Your task to perform on an android device: snooze an email in the gmail app Image 0: 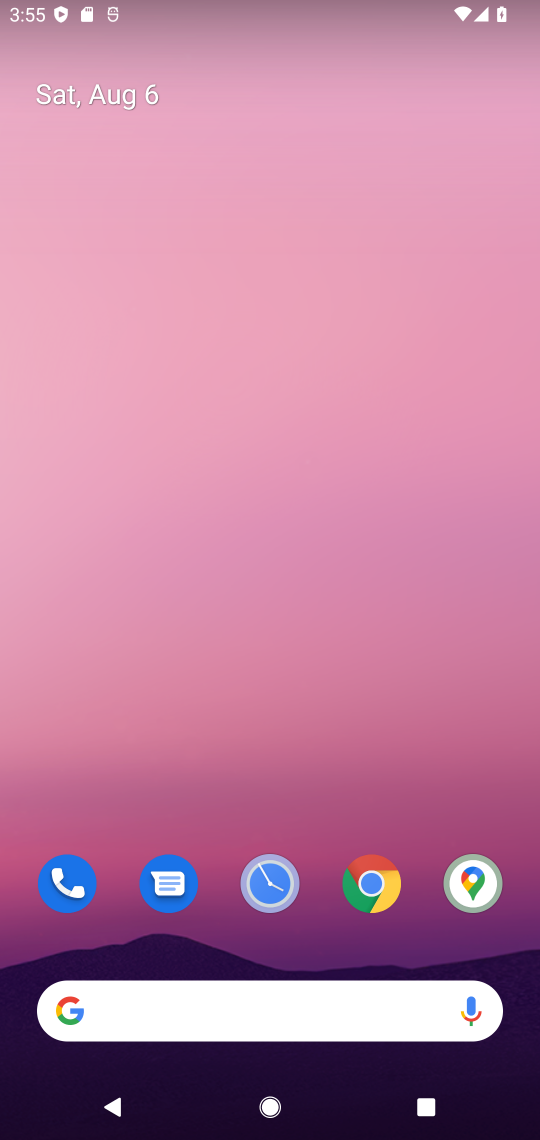
Step 0: drag from (353, 1011) to (442, 167)
Your task to perform on an android device: snooze an email in the gmail app Image 1: 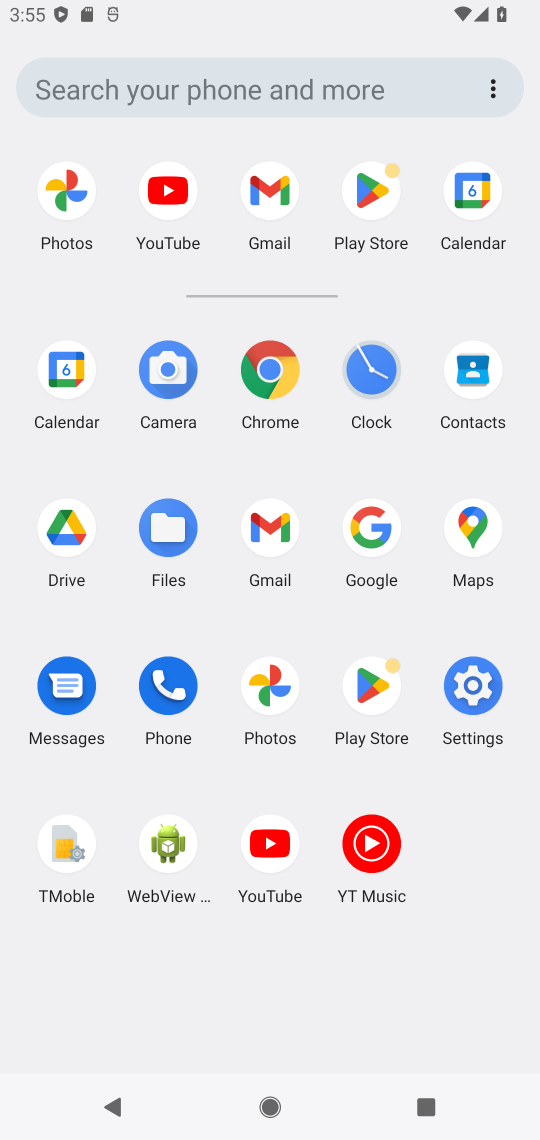
Step 1: click (279, 551)
Your task to perform on an android device: snooze an email in the gmail app Image 2: 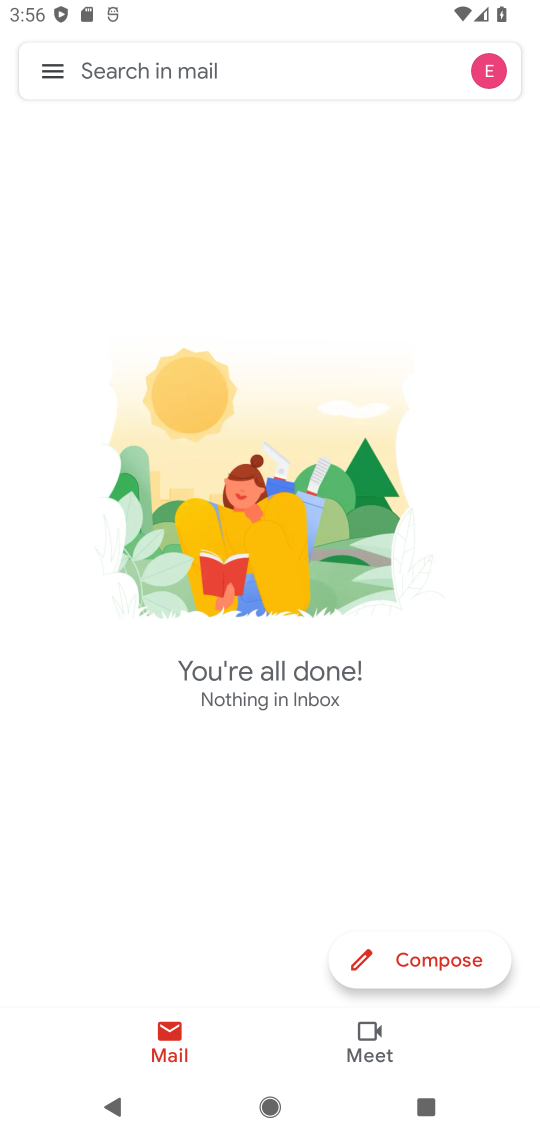
Step 2: click (55, 80)
Your task to perform on an android device: snooze an email in the gmail app Image 3: 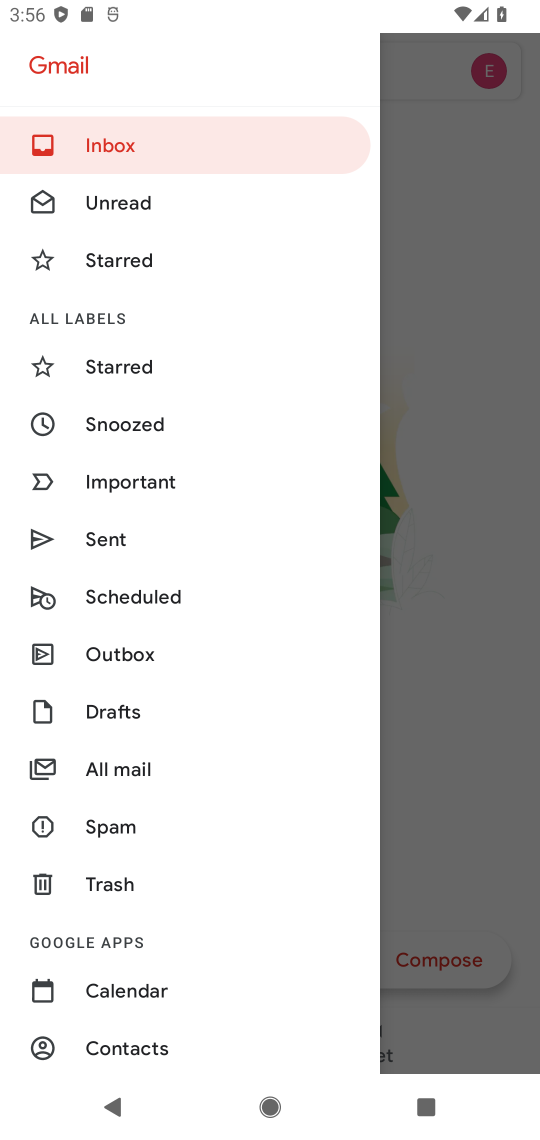
Step 3: click (132, 768)
Your task to perform on an android device: snooze an email in the gmail app Image 4: 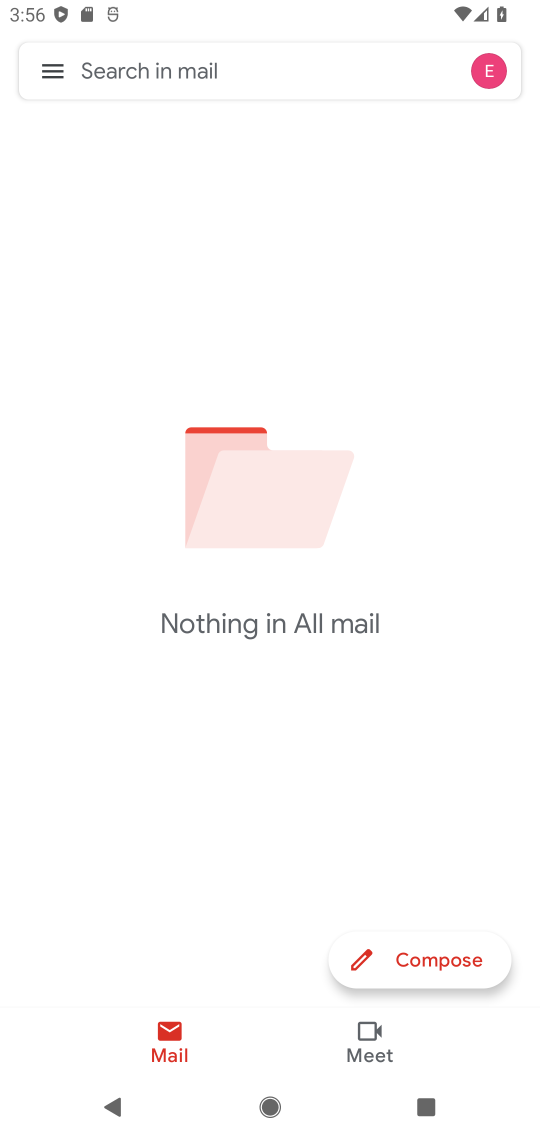
Step 4: task complete